Your task to perform on an android device: find snoozed emails in the gmail app Image 0: 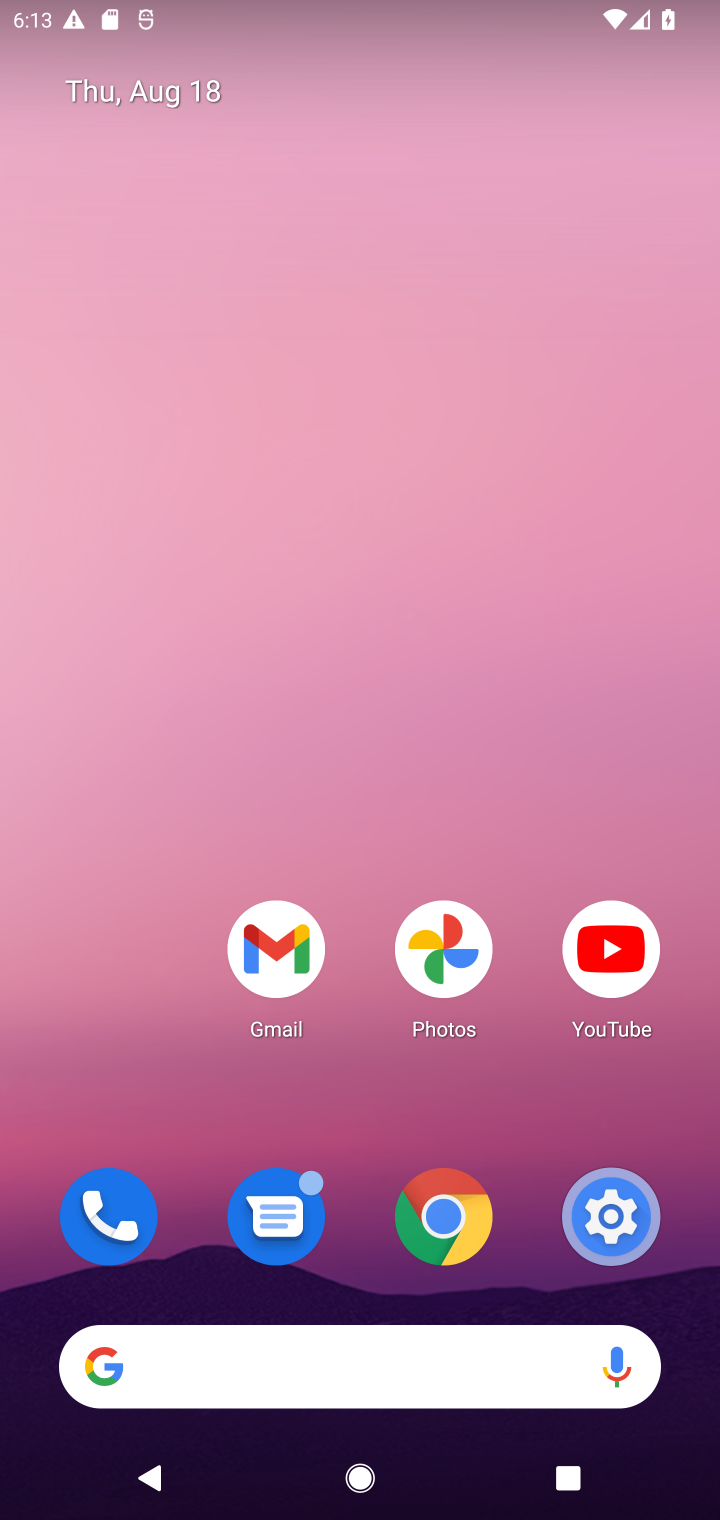
Step 0: click (262, 957)
Your task to perform on an android device: find snoozed emails in the gmail app Image 1: 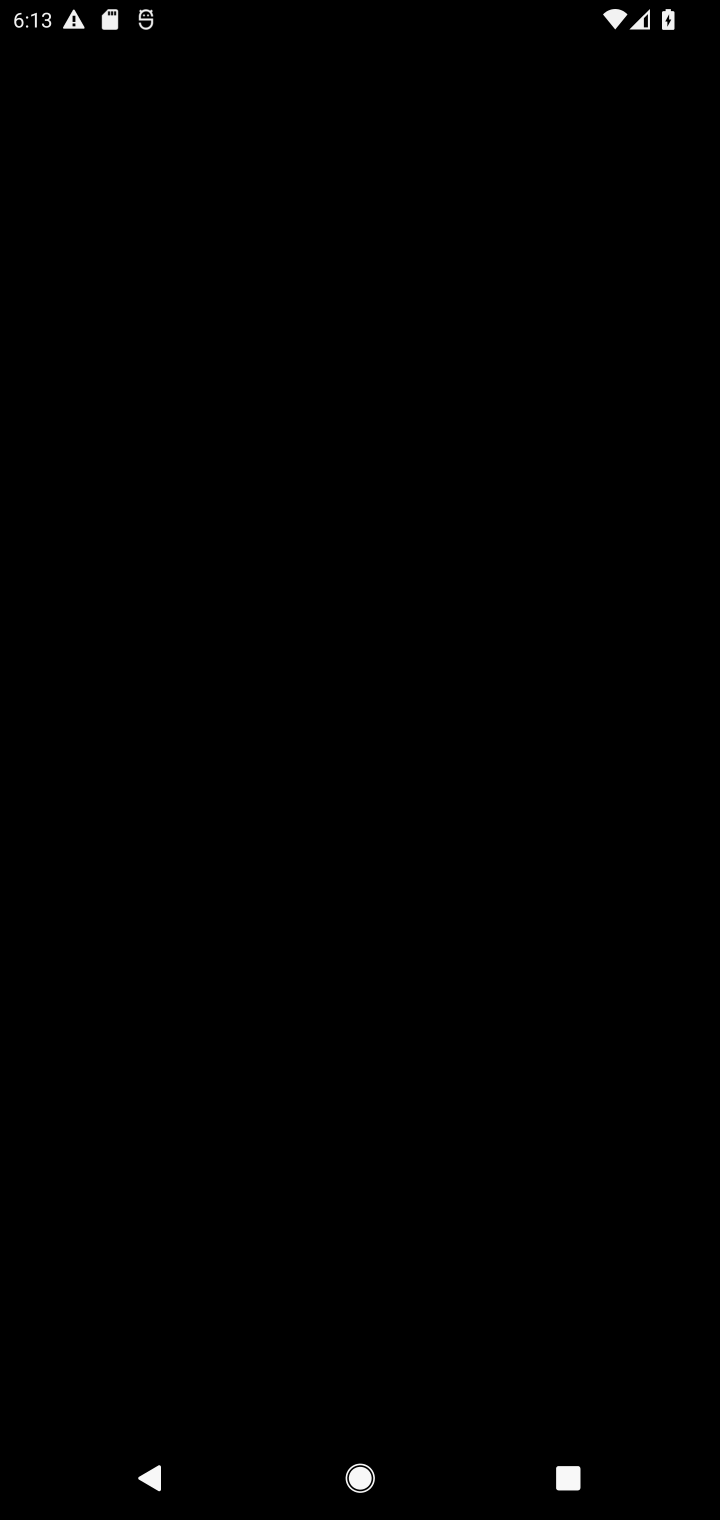
Step 1: click (49, 85)
Your task to perform on an android device: find snoozed emails in the gmail app Image 2: 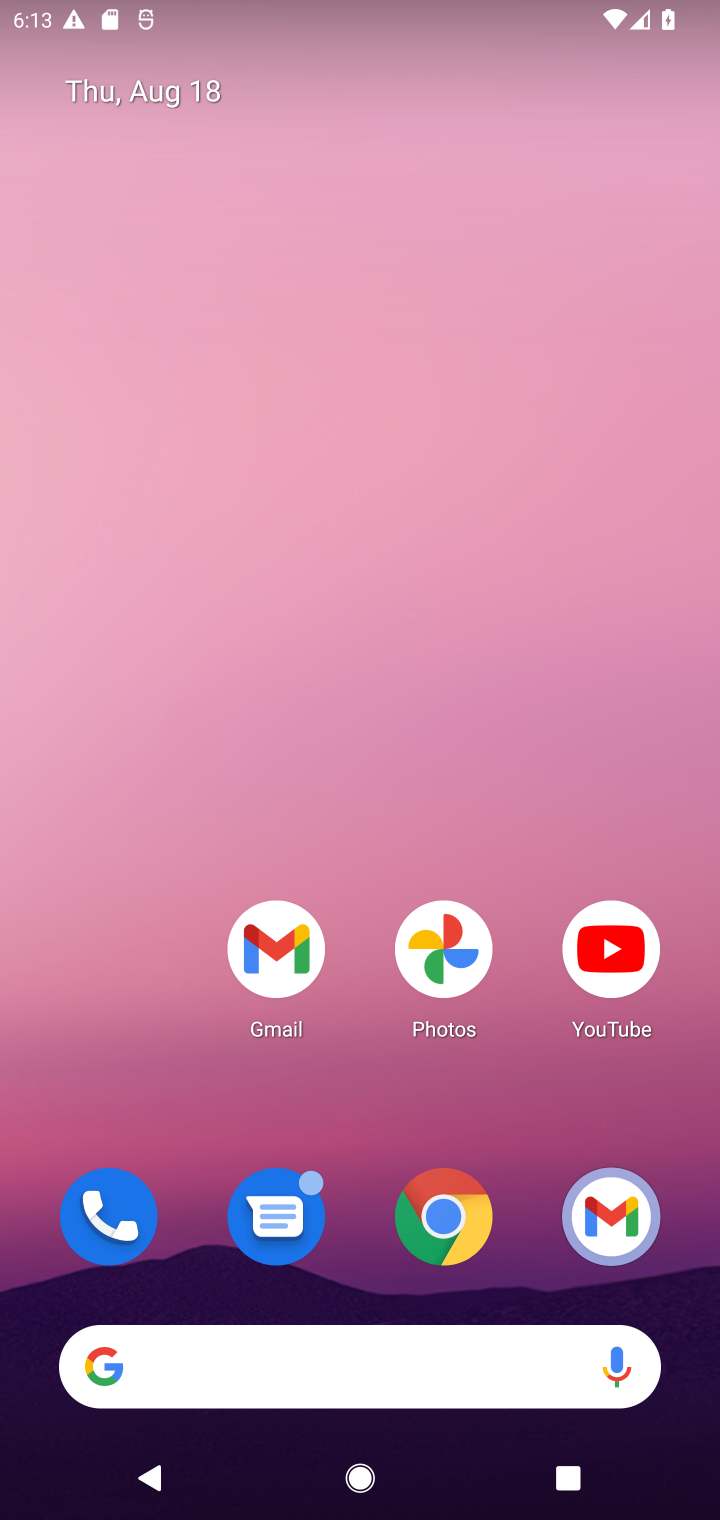
Step 2: click (283, 950)
Your task to perform on an android device: find snoozed emails in the gmail app Image 3: 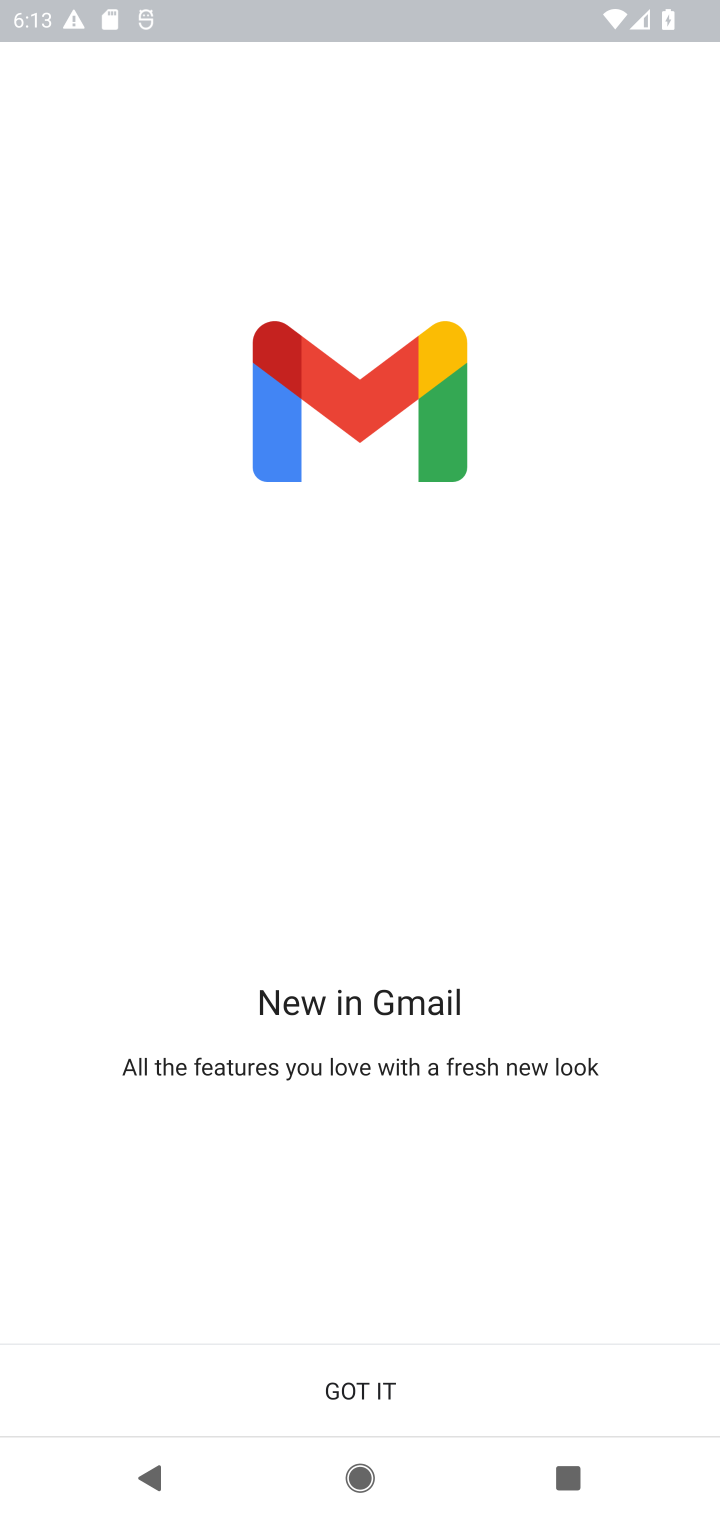
Step 3: click (360, 1374)
Your task to perform on an android device: find snoozed emails in the gmail app Image 4: 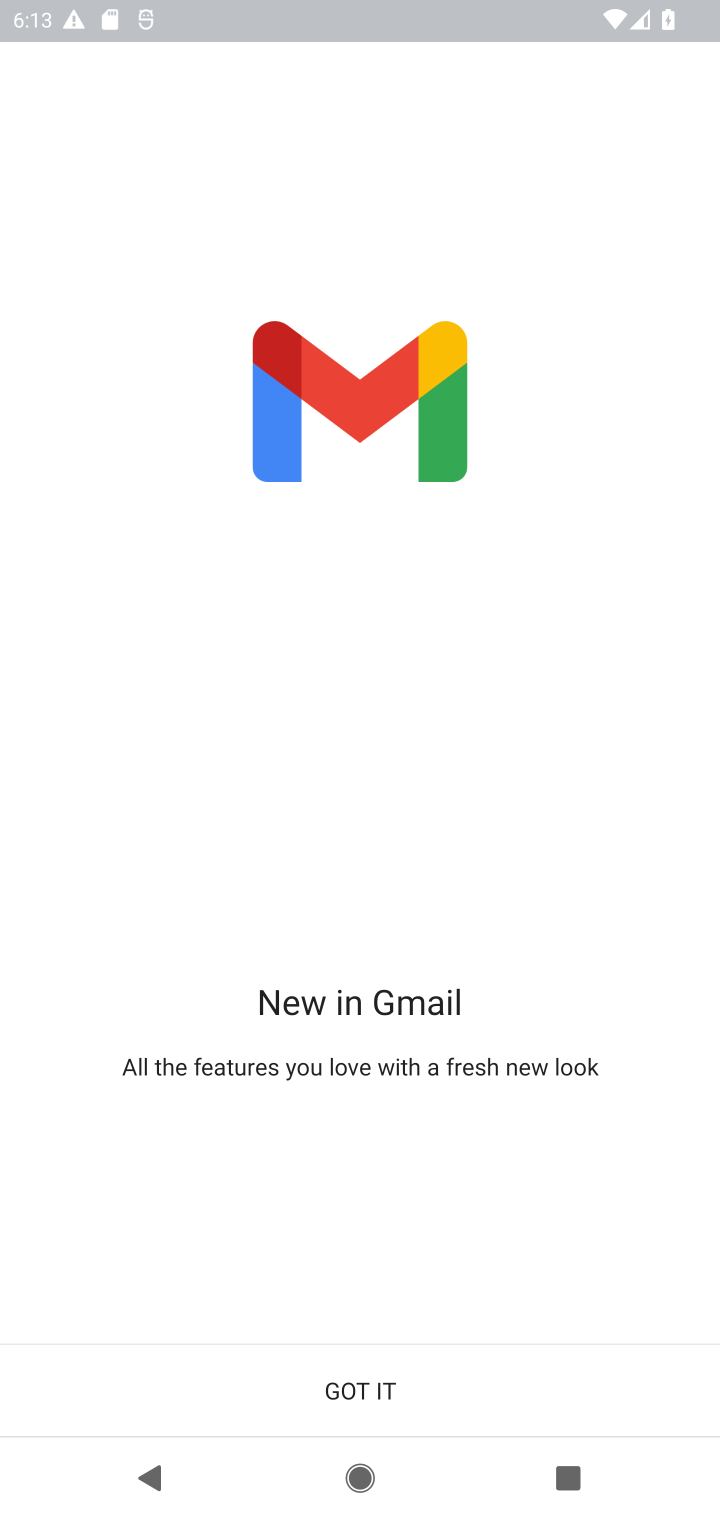
Step 4: click (359, 1386)
Your task to perform on an android device: find snoozed emails in the gmail app Image 5: 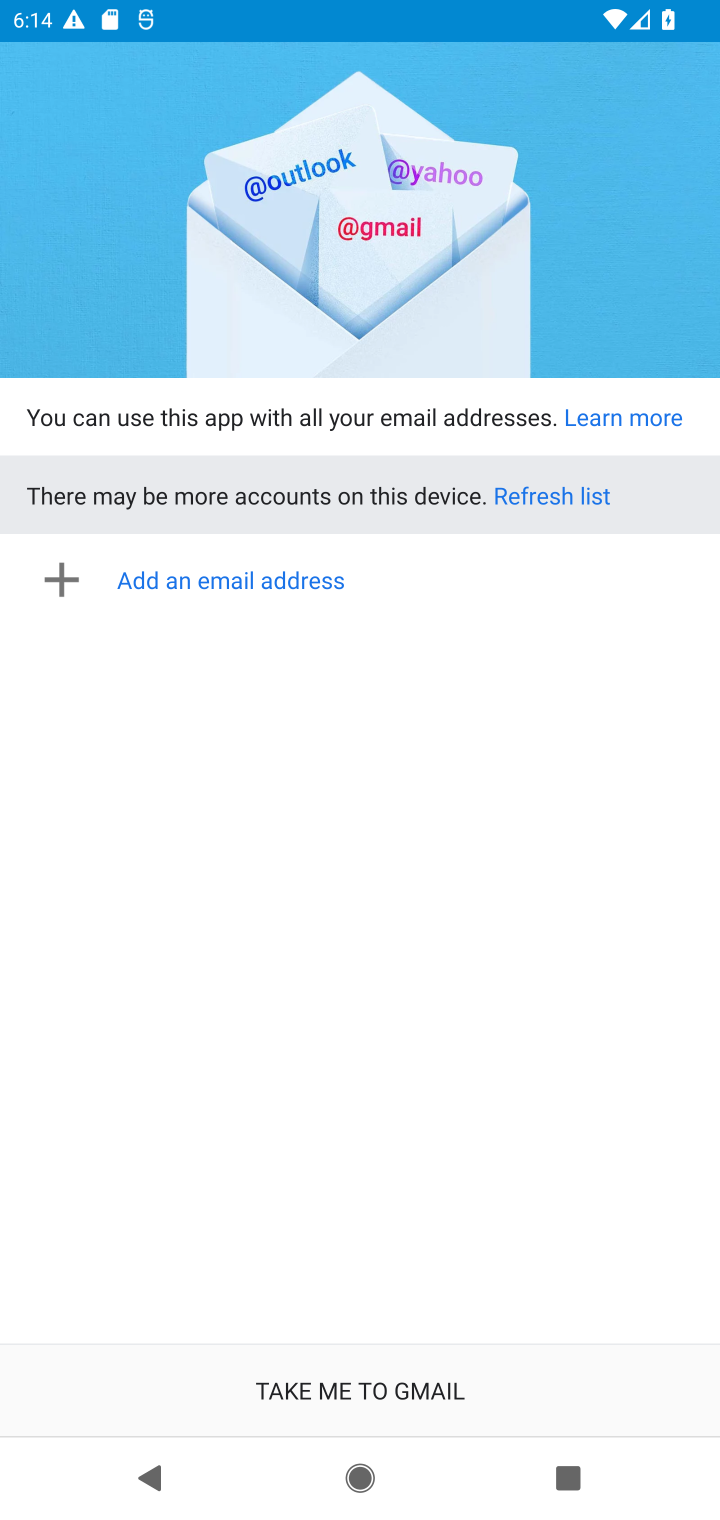
Step 5: click (375, 1389)
Your task to perform on an android device: find snoozed emails in the gmail app Image 6: 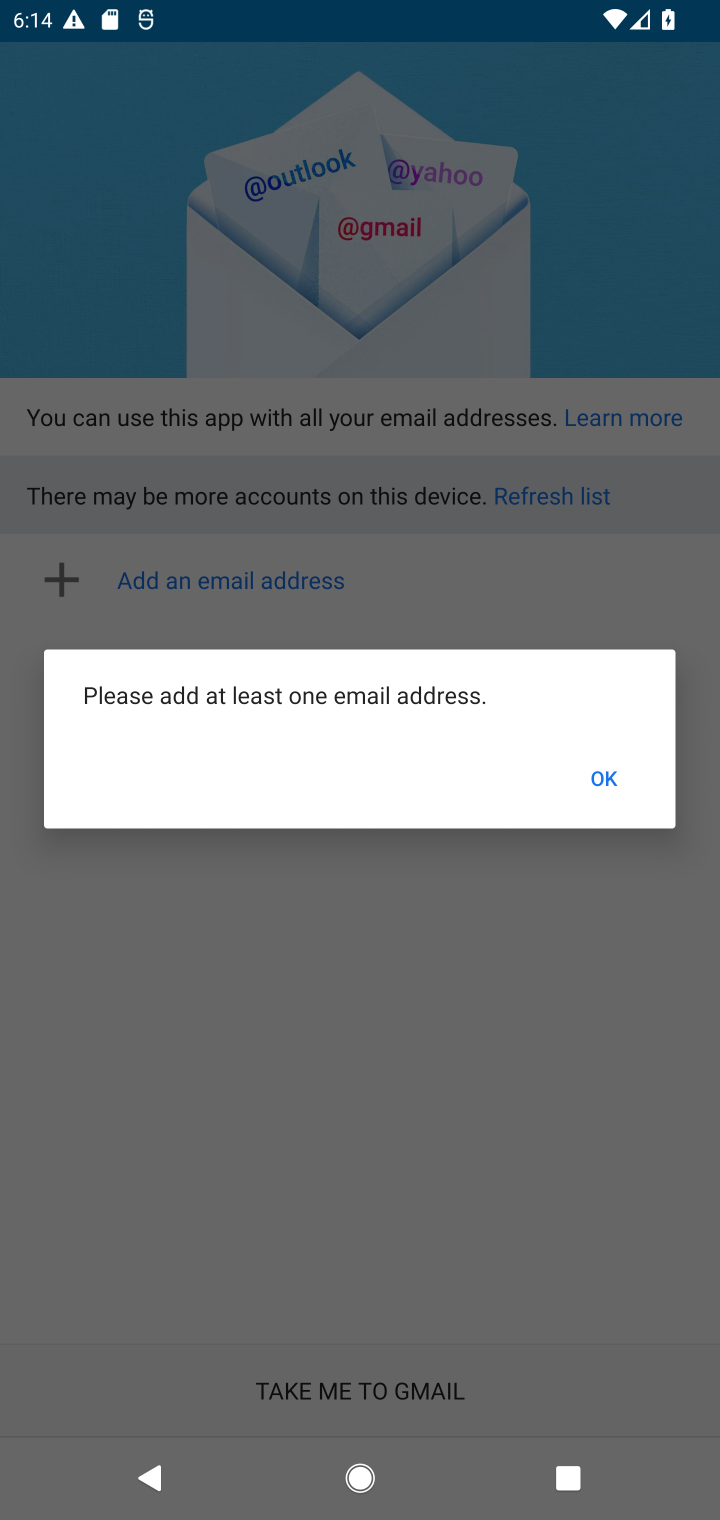
Step 6: click (602, 769)
Your task to perform on an android device: find snoozed emails in the gmail app Image 7: 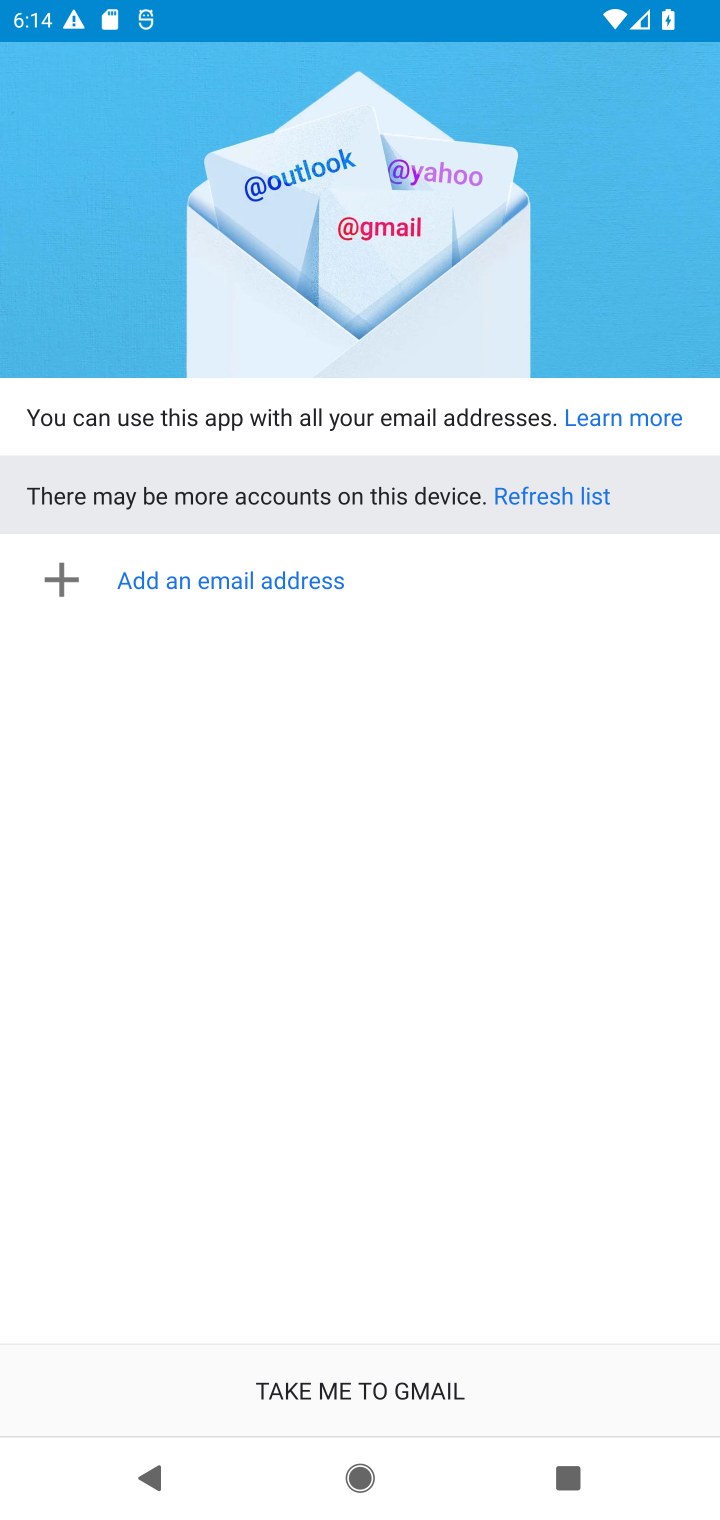
Step 7: click (357, 1390)
Your task to perform on an android device: find snoozed emails in the gmail app Image 8: 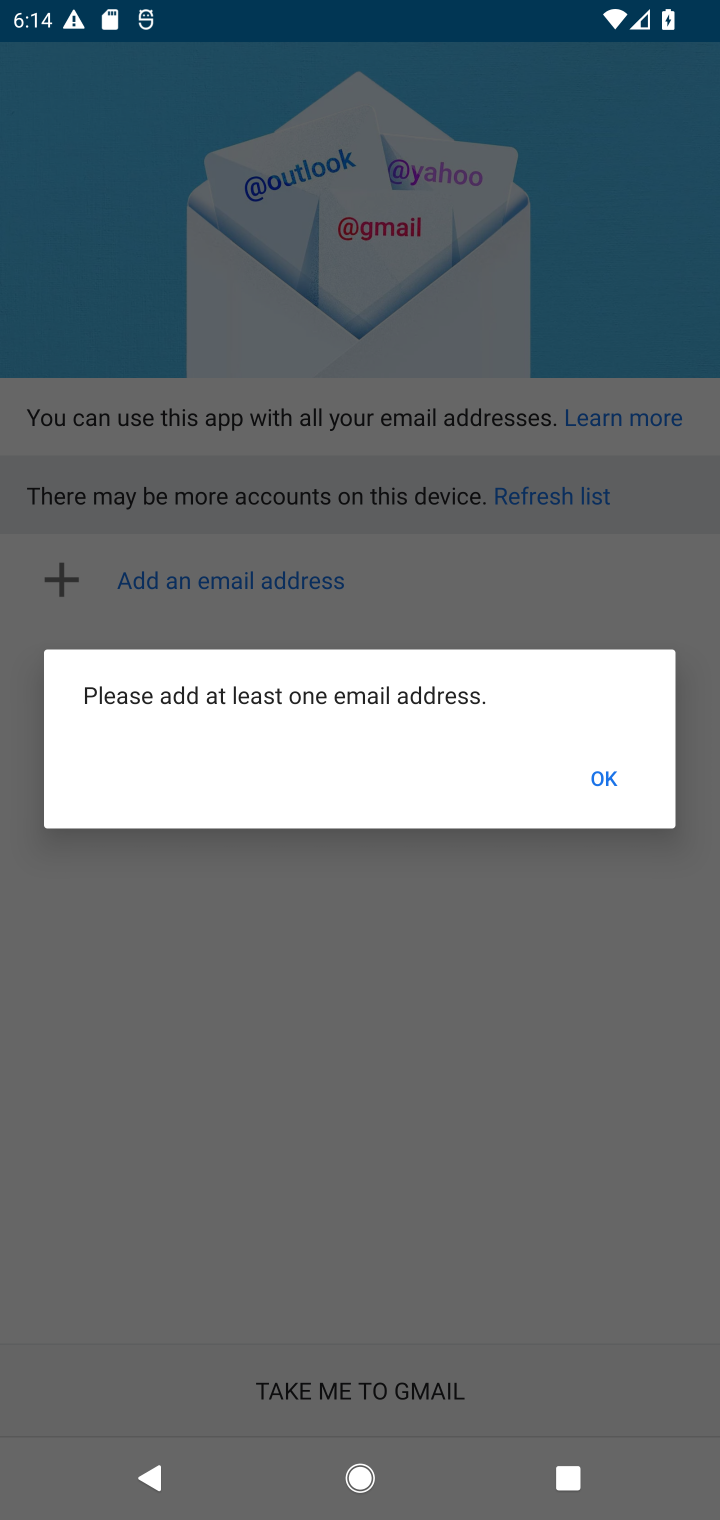
Step 8: click (606, 778)
Your task to perform on an android device: find snoozed emails in the gmail app Image 9: 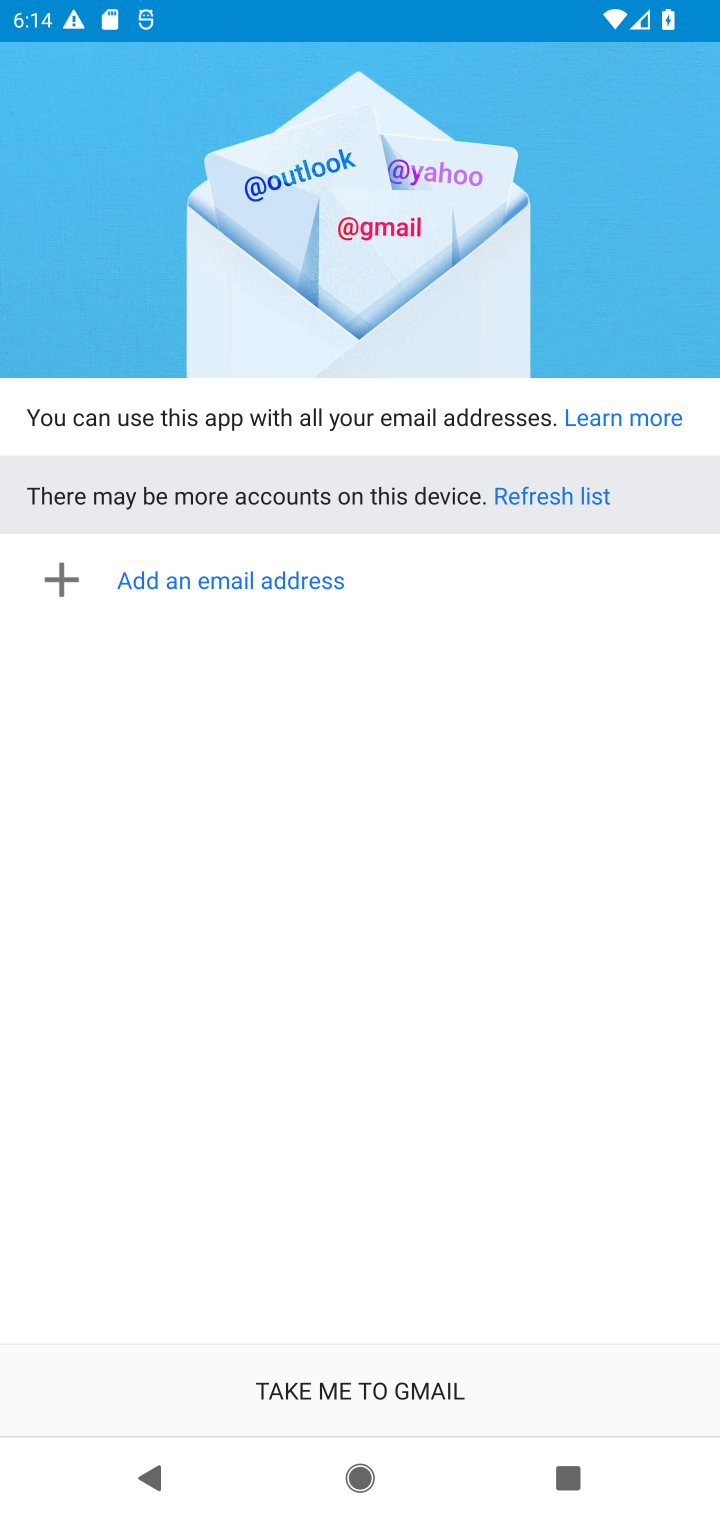
Step 9: click (375, 1373)
Your task to perform on an android device: find snoozed emails in the gmail app Image 10: 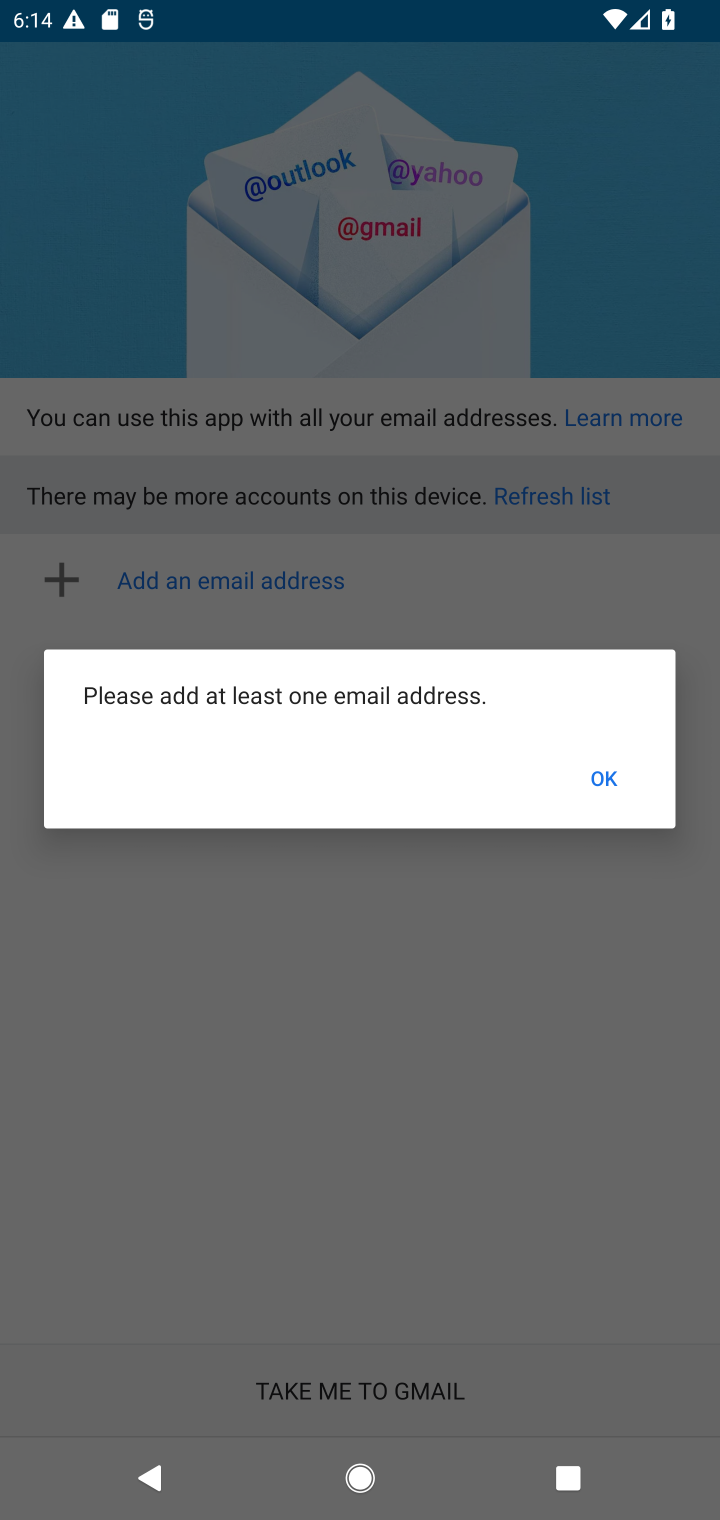
Step 10: click (602, 778)
Your task to perform on an android device: find snoozed emails in the gmail app Image 11: 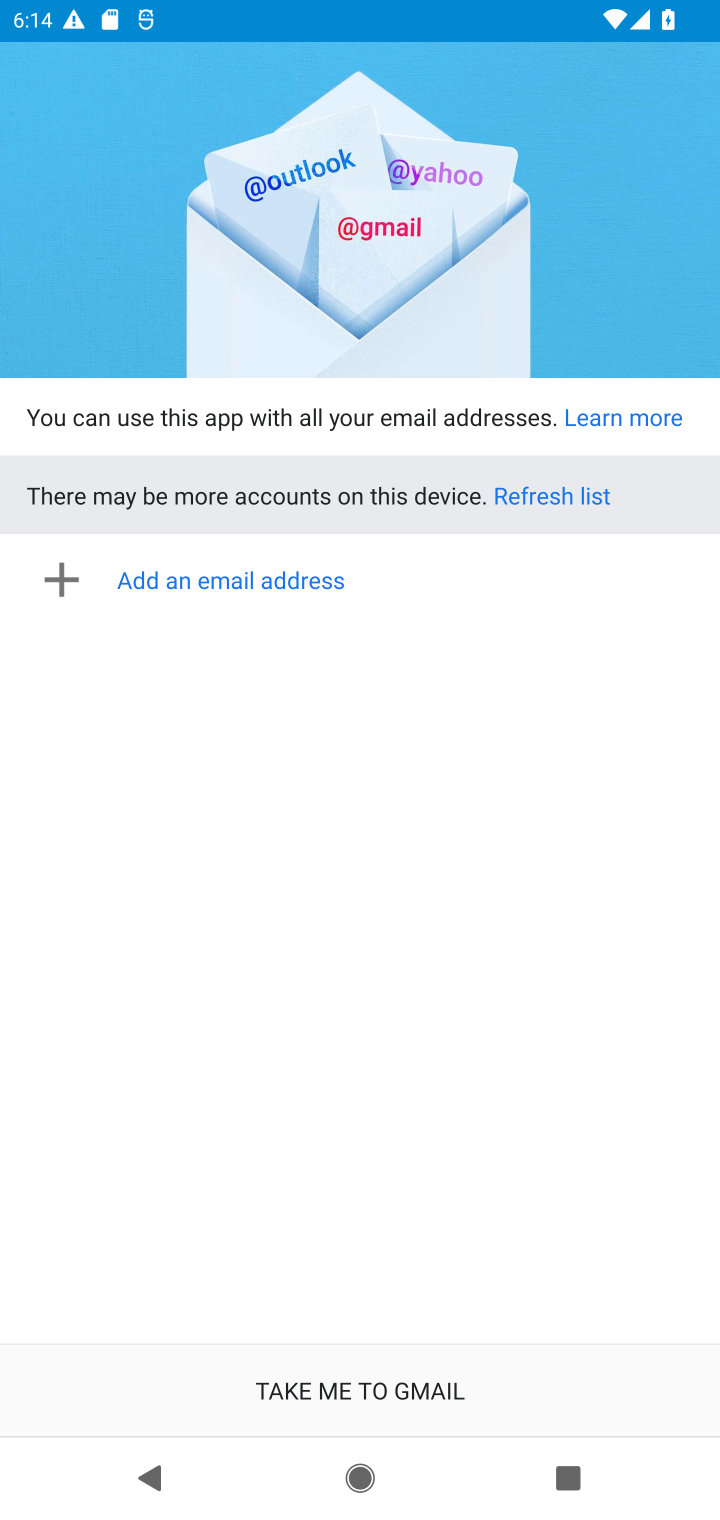
Step 11: task complete